Your task to perform on an android device: Open Chrome and go to settings Image 0: 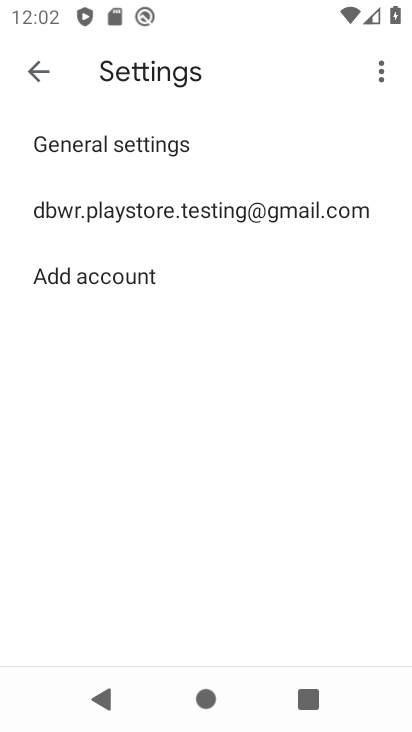
Step 0: press home button
Your task to perform on an android device: Open Chrome and go to settings Image 1: 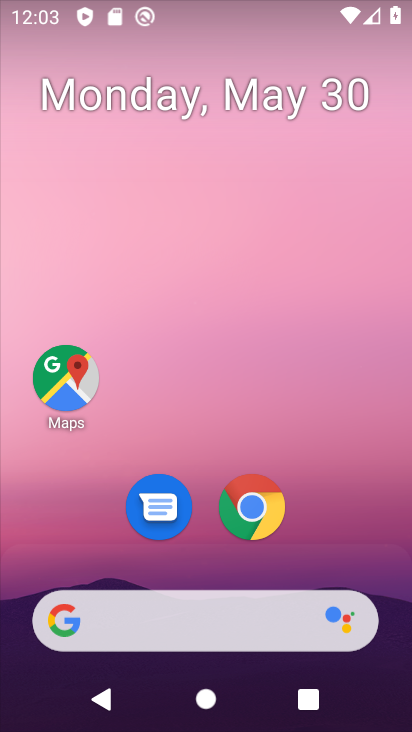
Step 1: drag from (263, 617) to (340, 228)
Your task to perform on an android device: Open Chrome and go to settings Image 2: 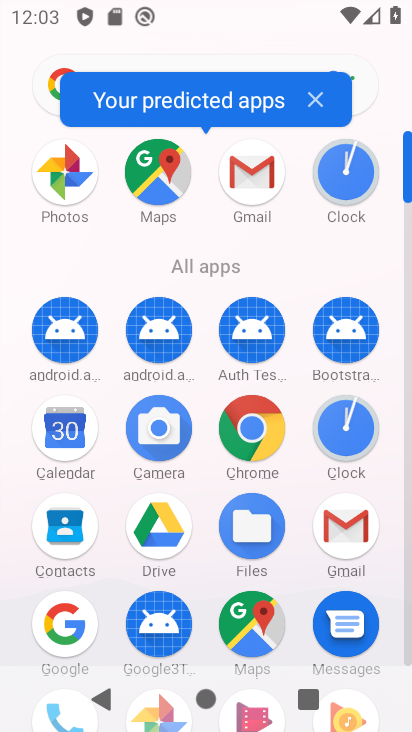
Step 2: drag from (227, 538) to (218, 325)
Your task to perform on an android device: Open Chrome and go to settings Image 3: 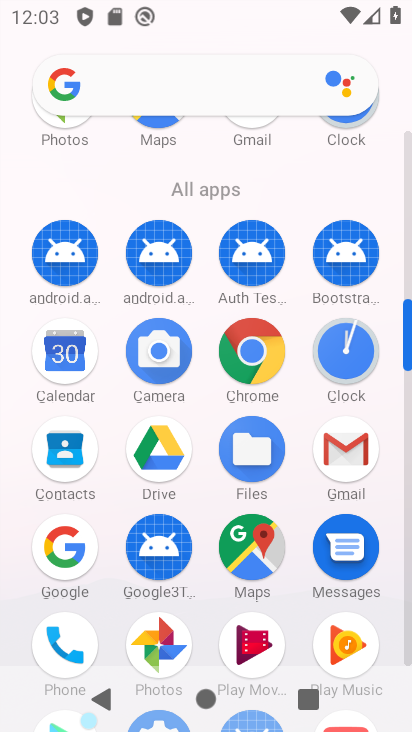
Step 3: click (249, 347)
Your task to perform on an android device: Open Chrome and go to settings Image 4: 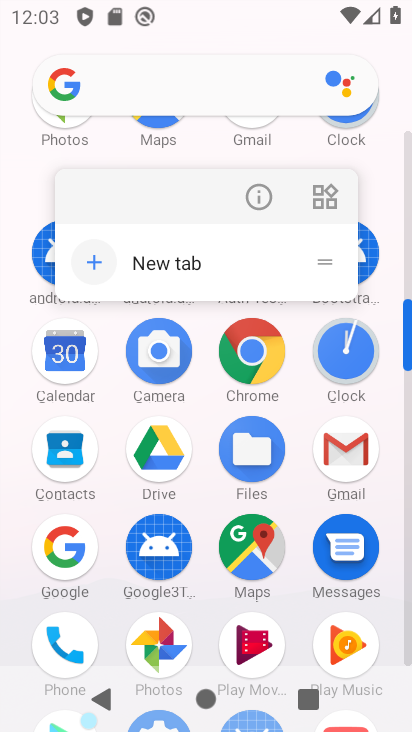
Step 4: click (254, 349)
Your task to perform on an android device: Open Chrome and go to settings Image 5: 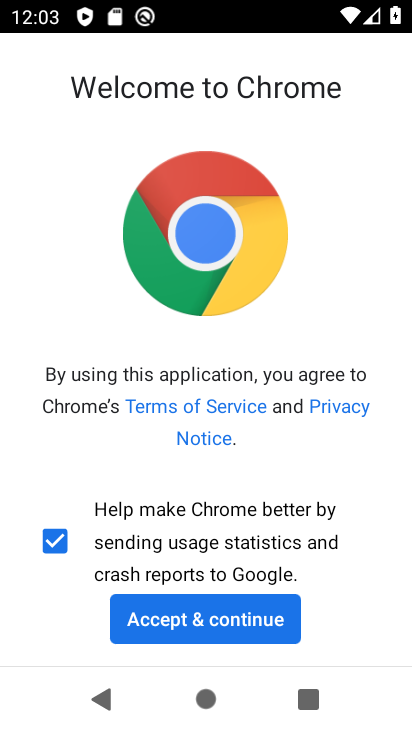
Step 5: click (213, 622)
Your task to perform on an android device: Open Chrome and go to settings Image 6: 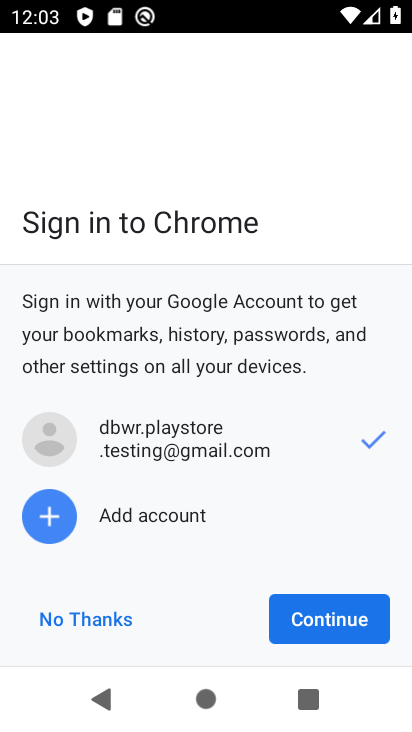
Step 6: click (315, 622)
Your task to perform on an android device: Open Chrome and go to settings Image 7: 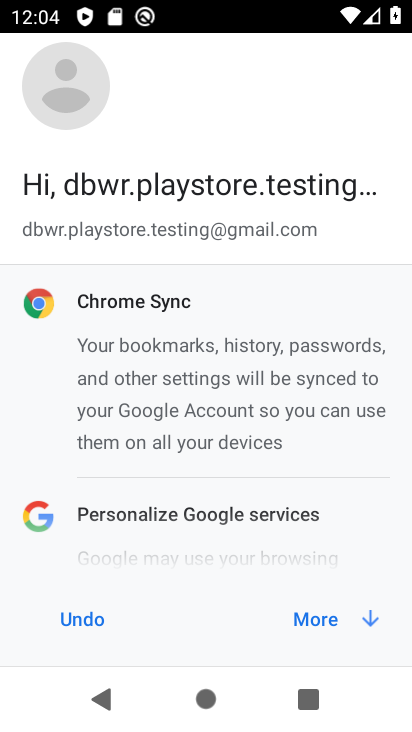
Step 7: click (319, 617)
Your task to perform on an android device: Open Chrome and go to settings Image 8: 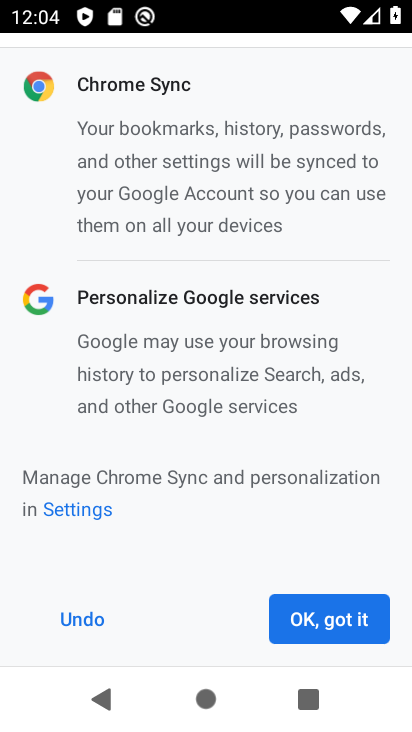
Step 8: click (319, 617)
Your task to perform on an android device: Open Chrome and go to settings Image 9: 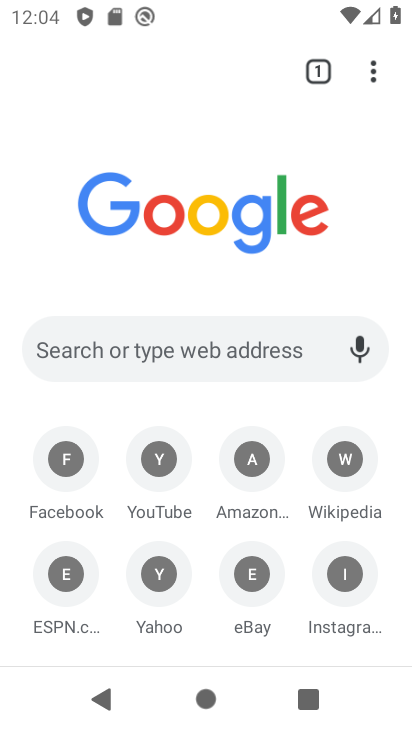
Step 9: click (370, 63)
Your task to perform on an android device: Open Chrome and go to settings Image 10: 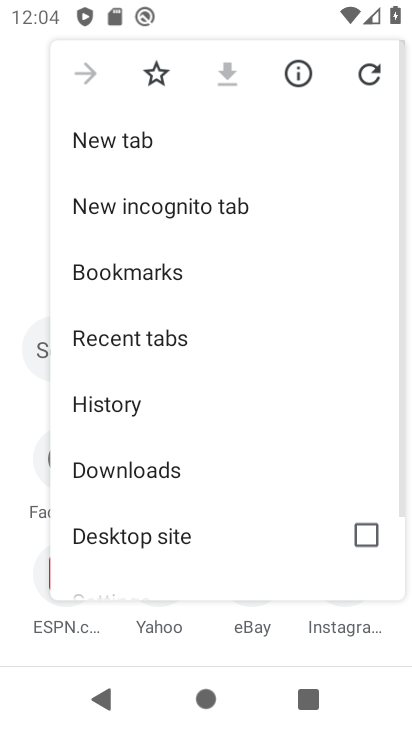
Step 10: drag from (170, 504) to (207, 207)
Your task to perform on an android device: Open Chrome and go to settings Image 11: 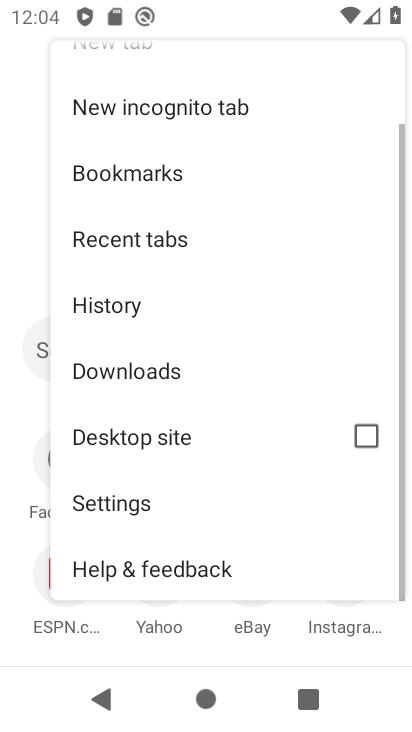
Step 11: click (161, 496)
Your task to perform on an android device: Open Chrome and go to settings Image 12: 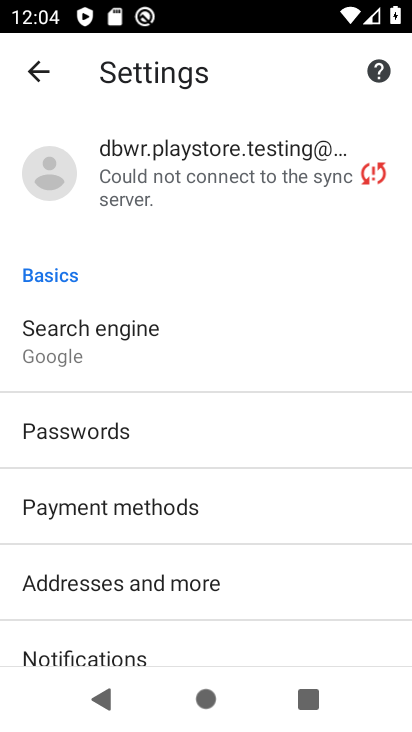
Step 12: task complete